Your task to perform on an android device: change the clock display to analog Image 0: 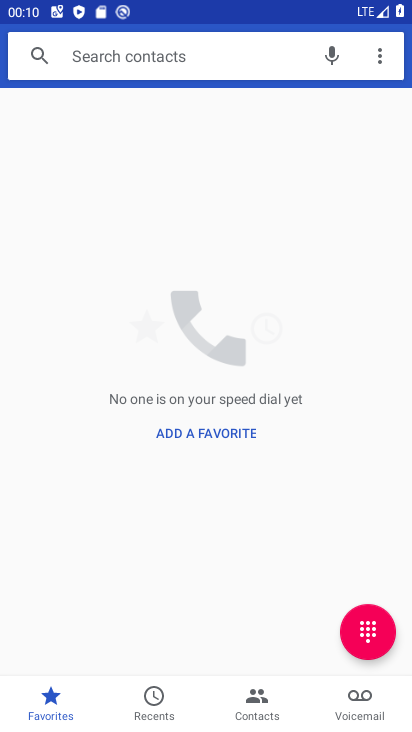
Step 0: press home button
Your task to perform on an android device: change the clock display to analog Image 1: 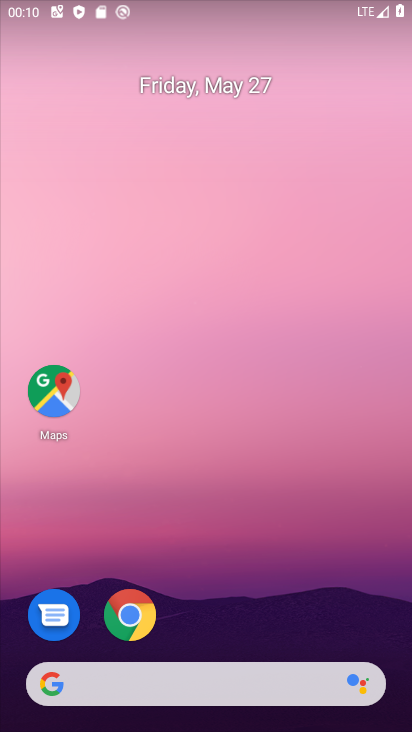
Step 1: drag from (303, 609) to (315, 9)
Your task to perform on an android device: change the clock display to analog Image 2: 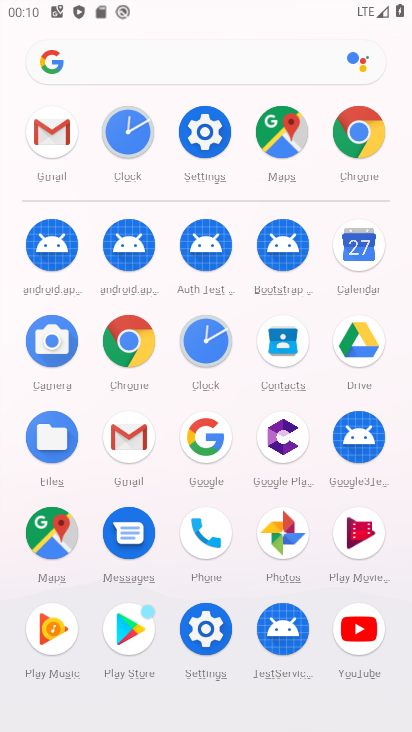
Step 2: click (211, 347)
Your task to perform on an android device: change the clock display to analog Image 3: 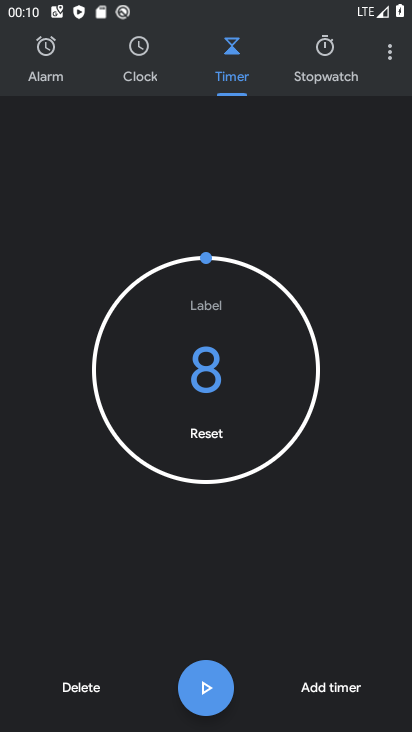
Step 3: click (377, 52)
Your task to perform on an android device: change the clock display to analog Image 4: 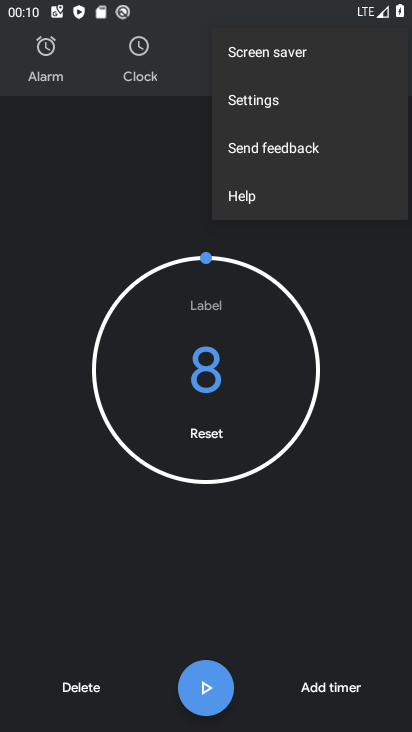
Step 4: click (284, 107)
Your task to perform on an android device: change the clock display to analog Image 5: 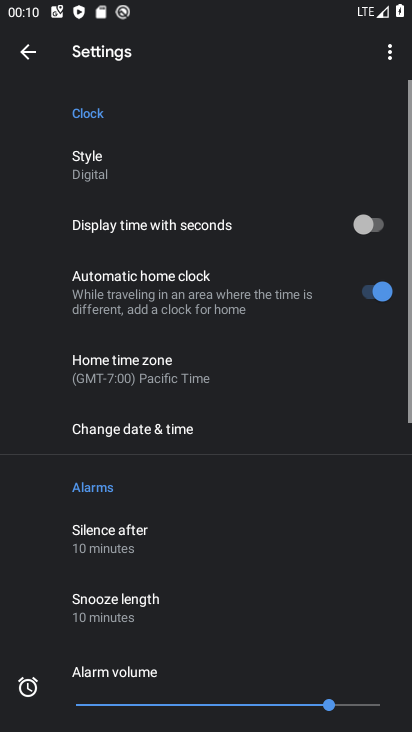
Step 5: click (106, 152)
Your task to perform on an android device: change the clock display to analog Image 6: 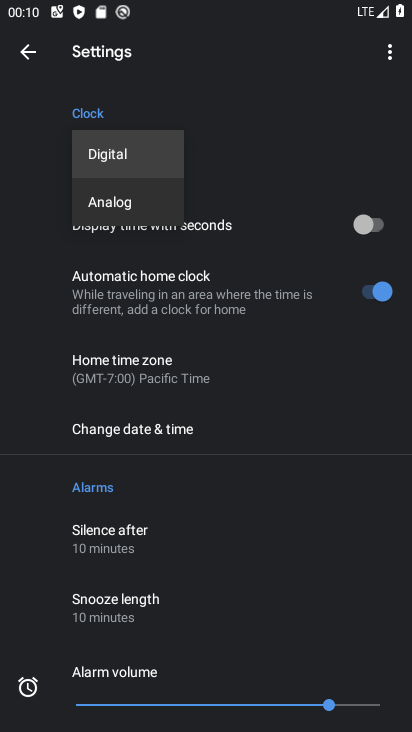
Step 6: click (112, 212)
Your task to perform on an android device: change the clock display to analog Image 7: 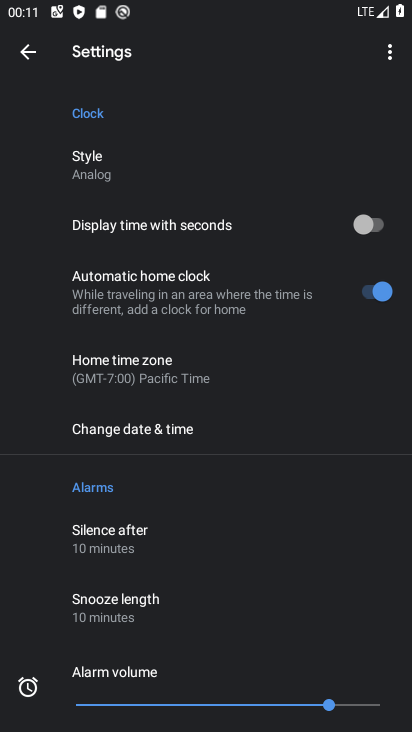
Step 7: task complete